Your task to perform on an android device: snooze an email in the gmail app Image 0: 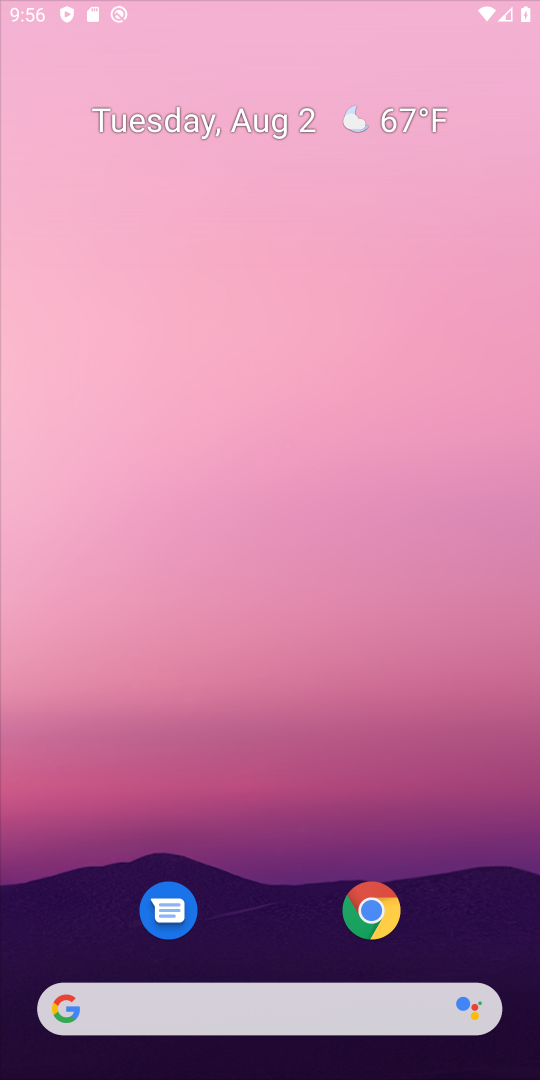
Step 0: press home button
Your task to perform on an android device: snooze an email in the gmail app Image 1: 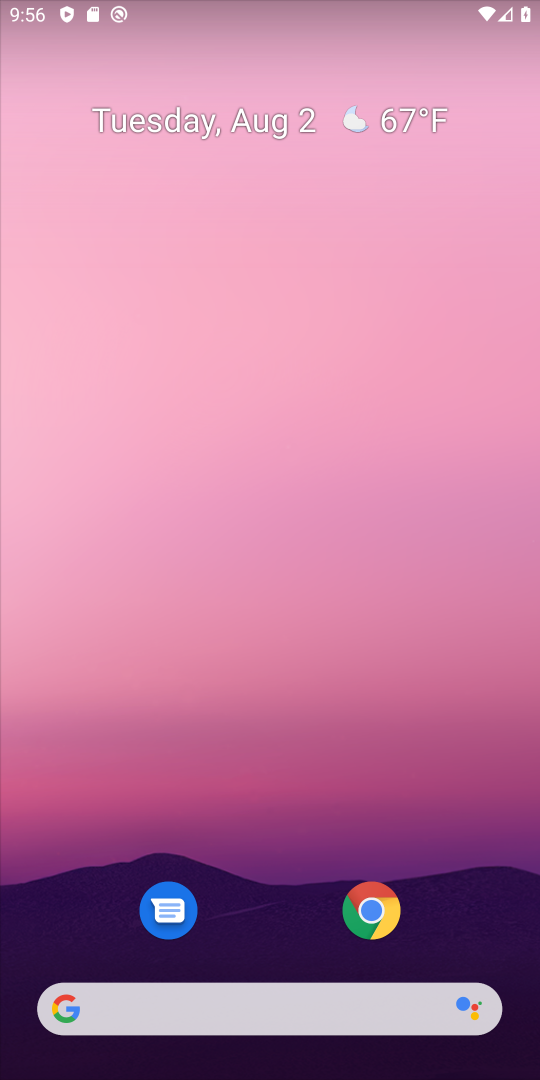
Step 1: drag from (257, 938) to (274, 377)
Your task to perform on an android device: snooze an email in the gmail app Image 2: 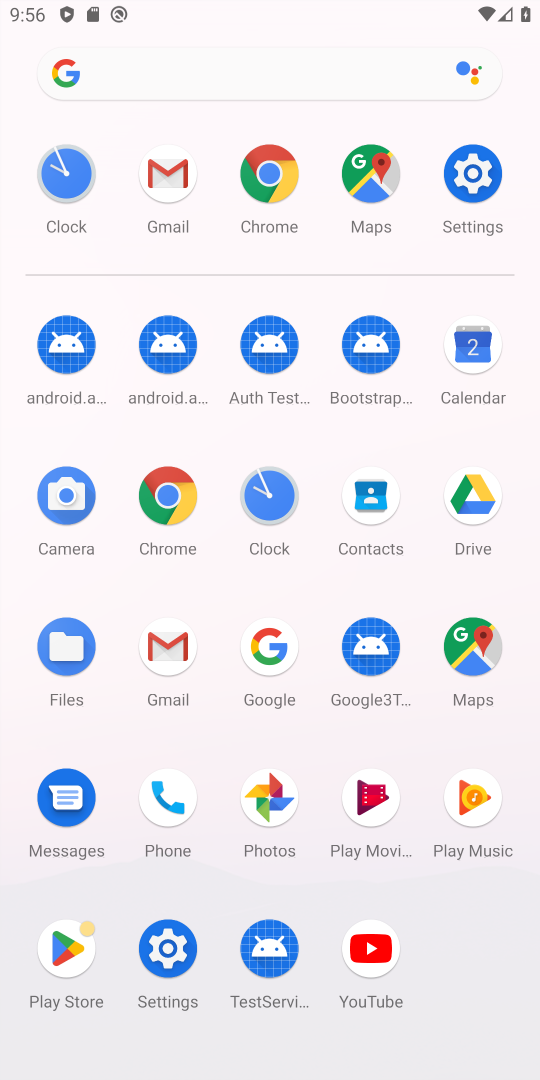
Step 2: click (172, 626)
Your task to perform on an android device: snooze an email in the gmail app Image 3: 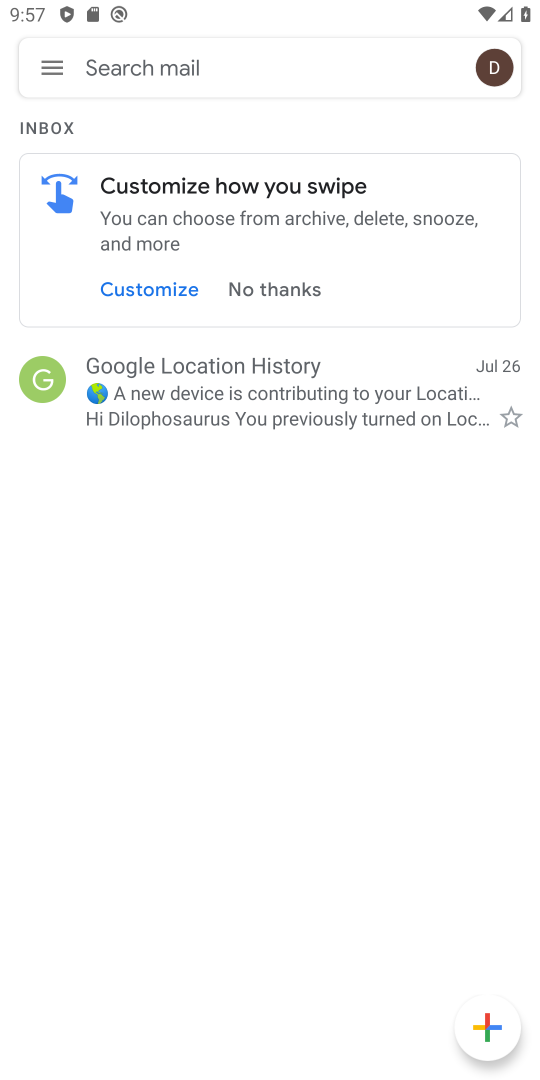
Step 3: click (40, 60)
Your task to perform on an android device: snooze an email in the gmail app Image 4: 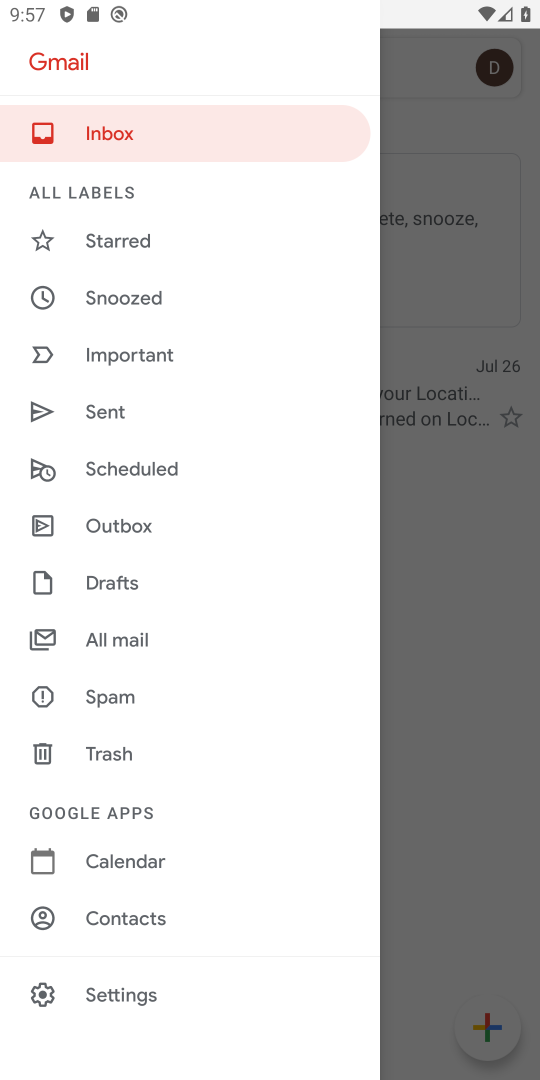
Step 4: click (123, 306)
Your task to perform on an android device: snooze an email in the gmail app Image 5: 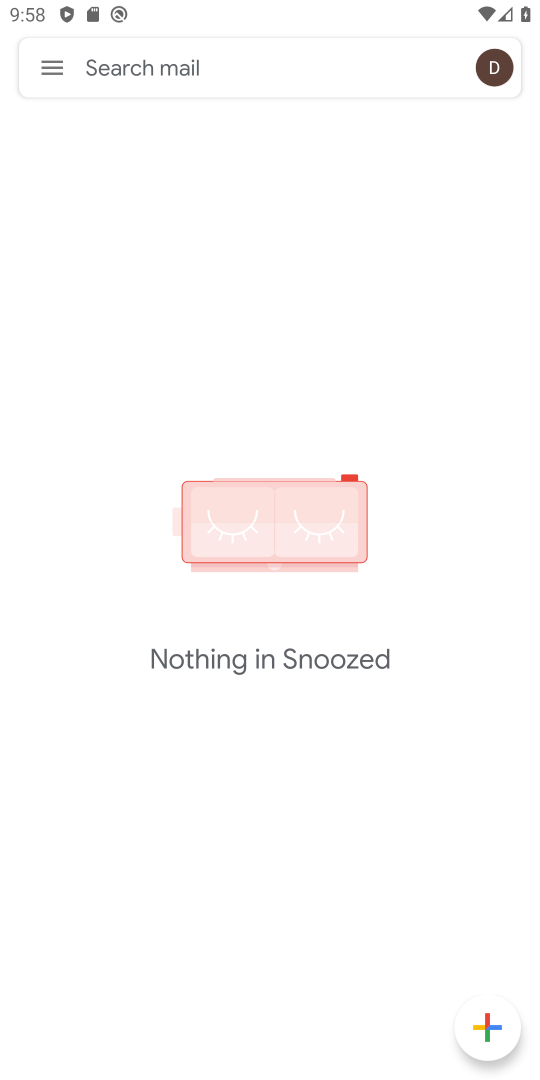
Step 5: task complete